Your task to perform on an android device: Open wifi settings Image 0: 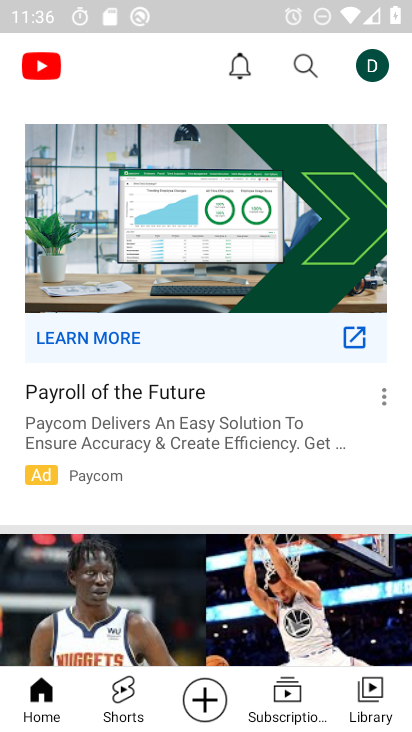
Step 0: press home button
Your task to perform on an android device: Open wifi settings Image 1: 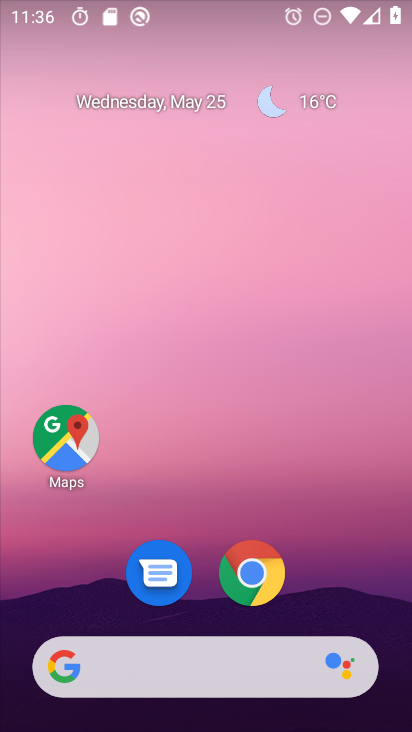
Step 1: drag from (356, 632) to (249, 0)
Your task to perform on an android device: Open wifi settings Image 2: 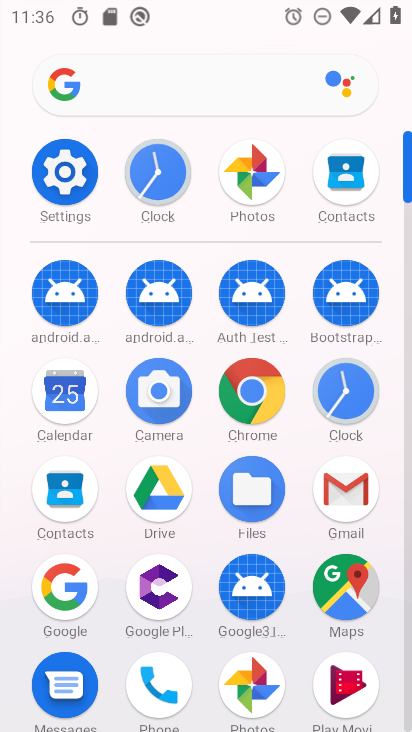
Step 2: click (64, 174)
Your task to perform on an android device: Open wifi settings Image 3: 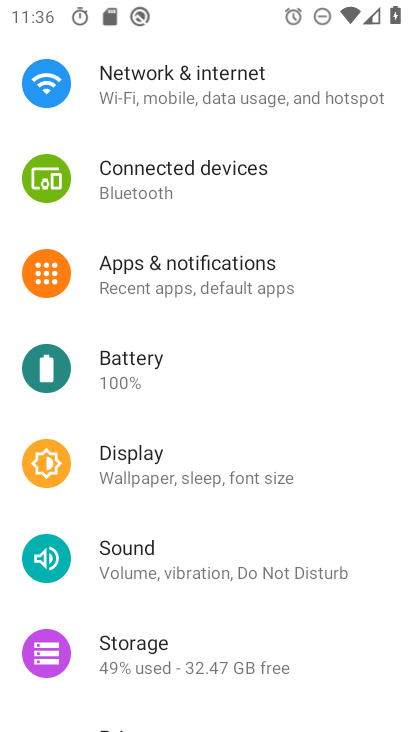
Step 3: click (192, 83)
Your task to perform on an android device: Open wifi settings Image 4: 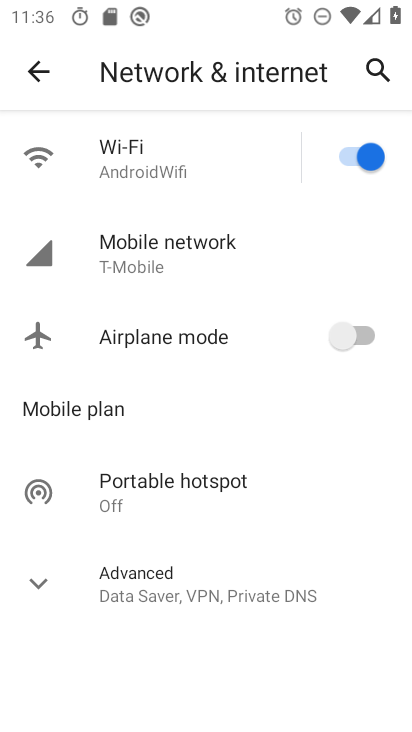
Step 4: click (78, 163)
Your task to perform on an android device: Open wifi settings Image 5: 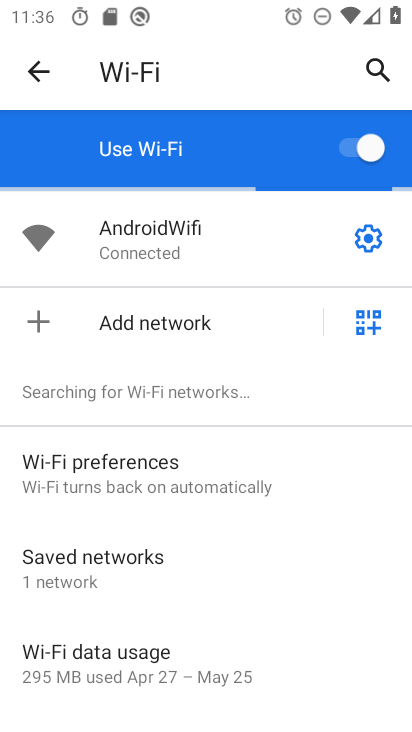
Step 5: task complete